Your task to perform on an android device: Is it going to rain tomorrow? Image 0: 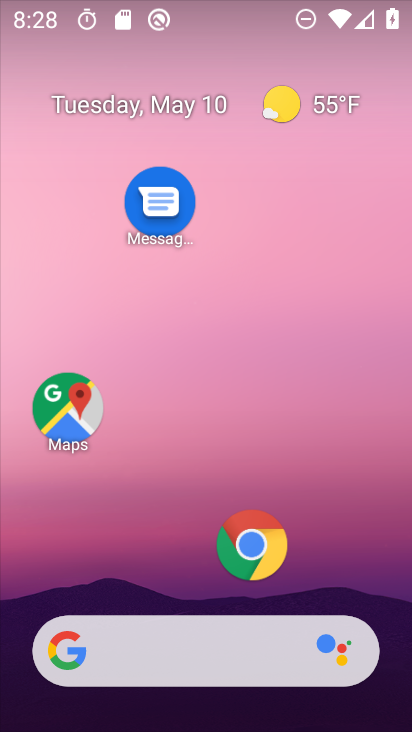
Step 0: drag from (206, 562) to (269, 206)
Your task to perform on an android device: Is it going to rain tomorrow? Image 1: 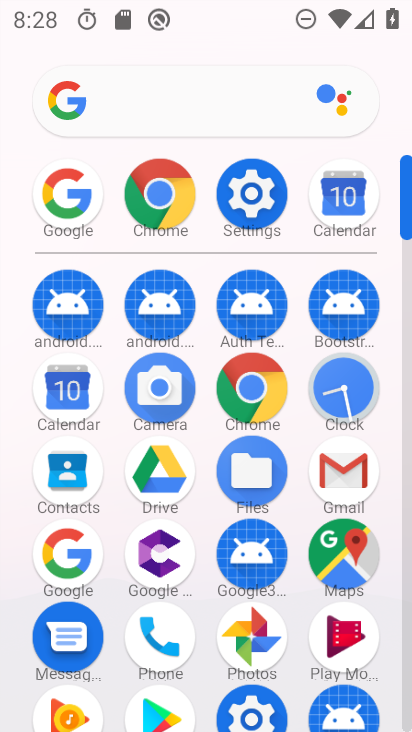
Step 1: click (78, 215)
Your task to perform on an android device: Is it going to rain tomorrow? Image 2: 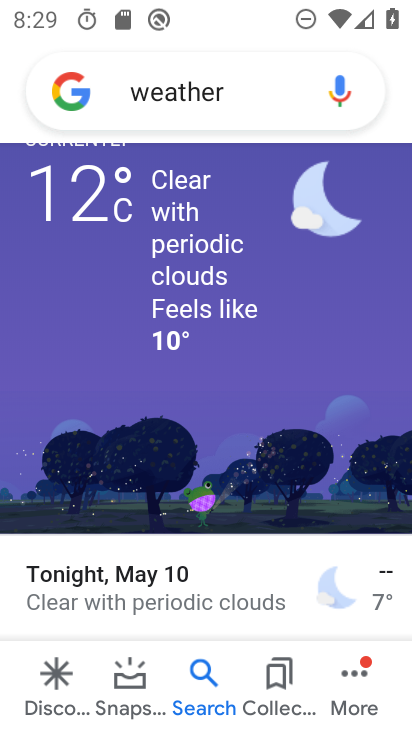
Step 2: drag from (268, 292) to (268, 554)
Your task to perform on an android device: Is it going to rain tomorrow? Image 3: 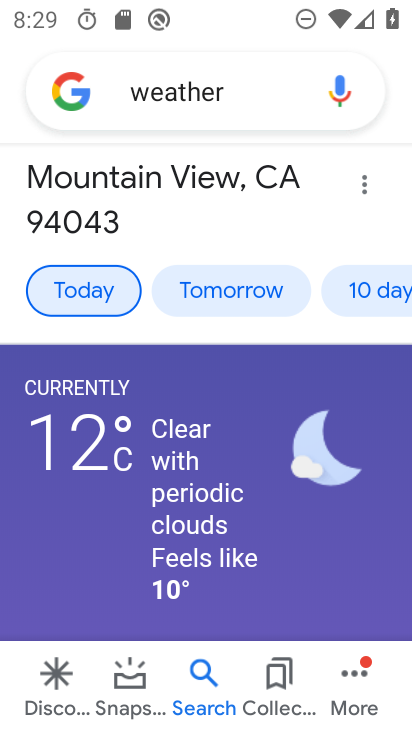
Step 3: click (242, 298)
Your task to perform on an android device: Is it going to rain tomorrow? Image 4: 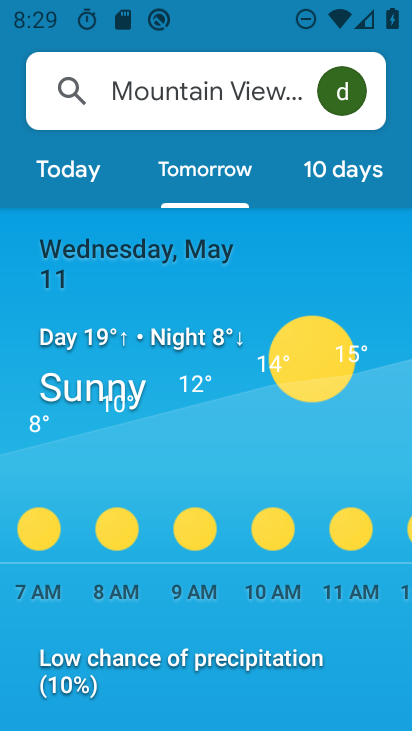
Step 4: task complete